Your task to perform on an android device: find snoozed emails in the gmail app Image 0: 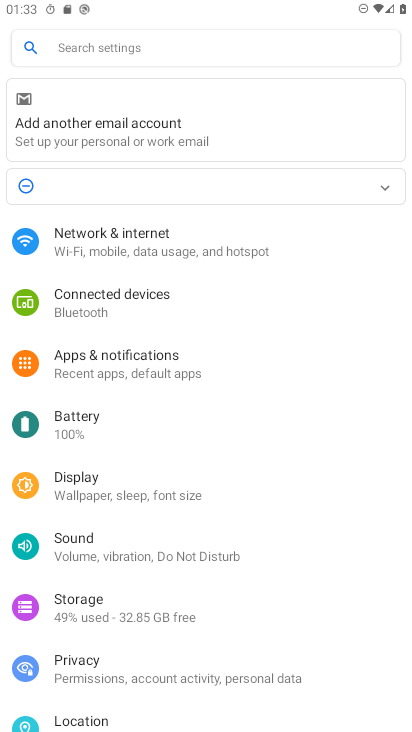
Step 0: press home button
Your task to perform on an android device: find snoozed emails in the gmail app Image 1: 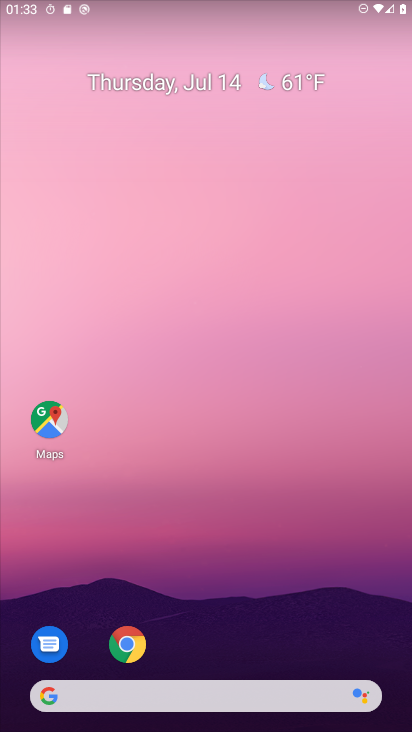
Step 1: drag from (317, 588) to (258, 76)
Your task to perform on an android device: find snoozed emails in the gmail app Image 2: 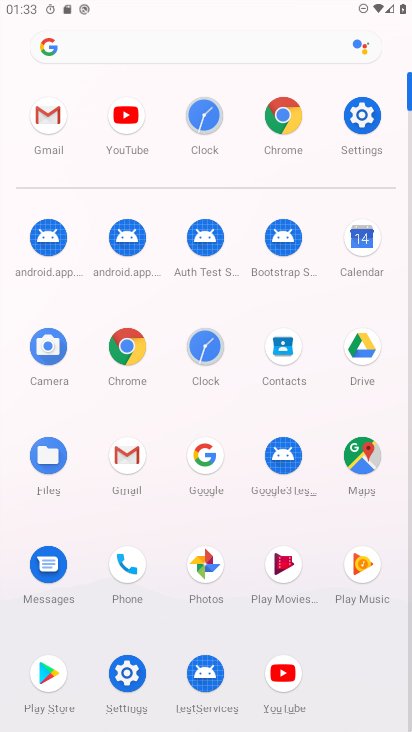
Step 2: click (50, 121)
Your task to perform on an android device: find snoozed emails in the gmail app Image 3: 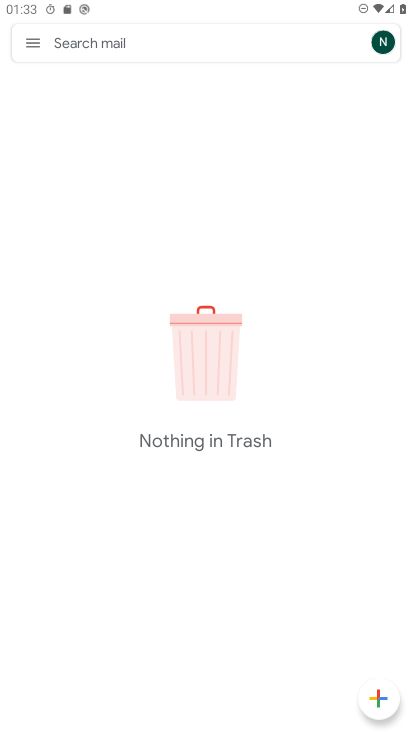
Step 3: click (36, 43)
Your task to perform on an android device: find snoozed emails in the gmail app Image 4: 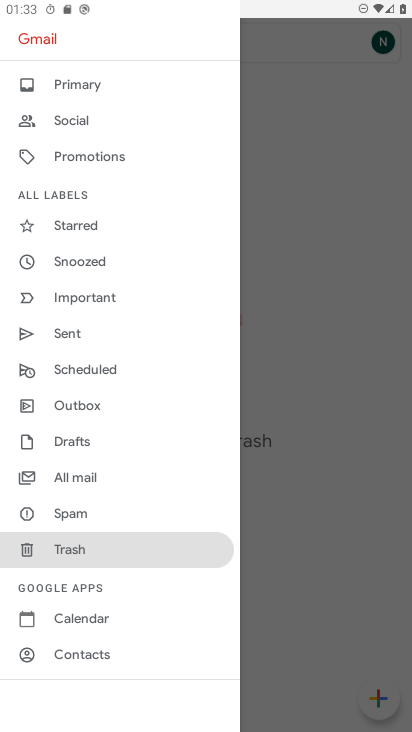
Step 4: click (80, 262)
Your task to perform on an android device: find snoozed emails in the gmail app Image 5: 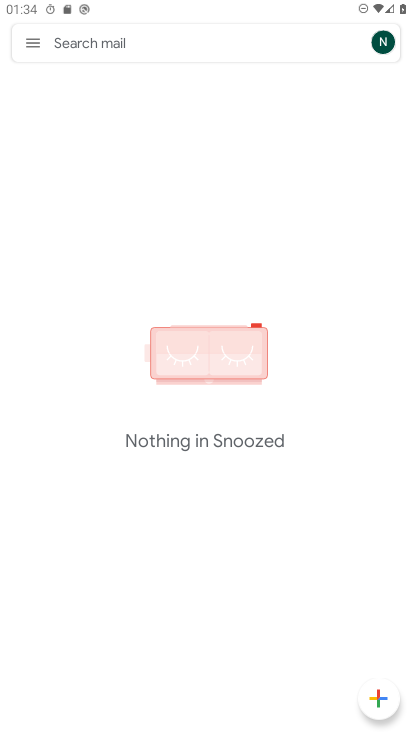
Step 5: task complete